Your task to perform on an android device: Open ESPN.com Image 0: 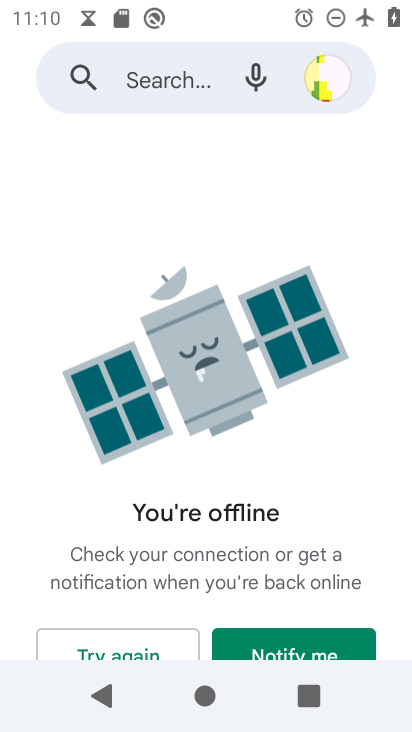
Step 0: press home button
Your task to perform on an android device: Open ESPN.com Image 1: 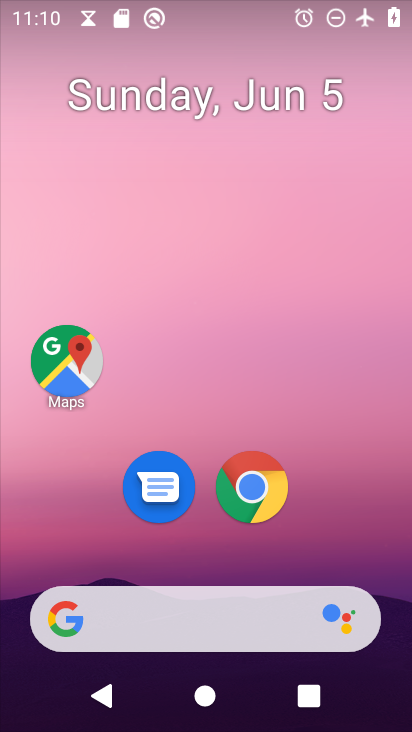
Step 1: click (238, 488)
Your task to perform on an android device: Open ESPN.com Image 2: 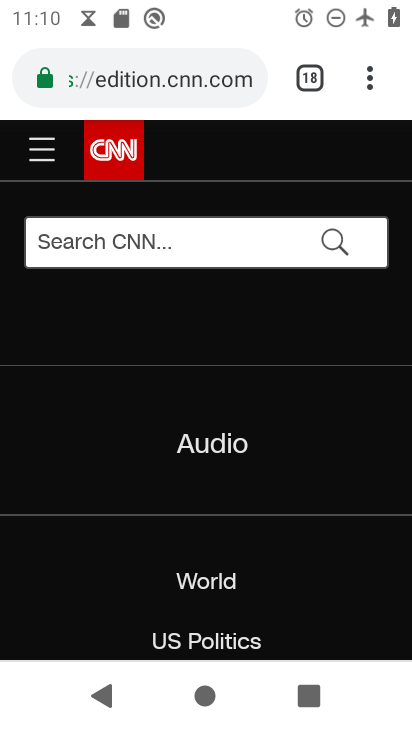
Step 2: click (371, 75)
Your task to perform on an android device: Open ESPN.com Image 3: 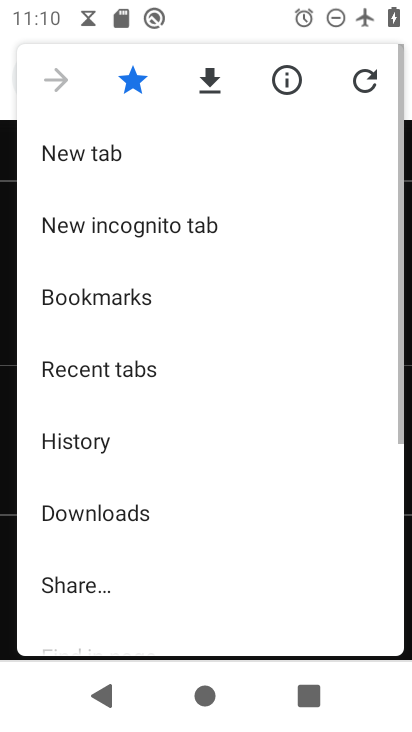
Step 3: click (104, 155)
Your task to perform on an android device: Open ESPN.com Image 4: 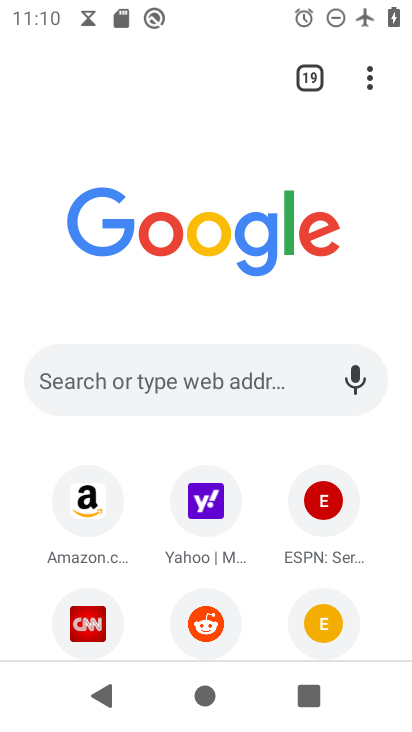
Step 4: click (322, 506)
Your task to perform on an android device: Open ESPN.com Image 5: 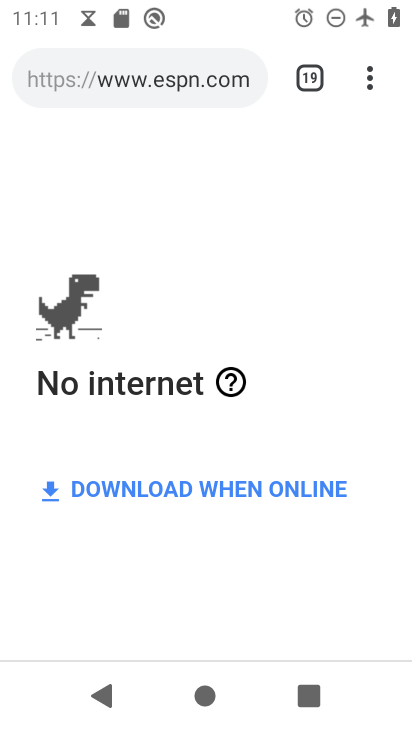
Step 5: task complete